Your task to perform on an android device: Open Youtube and go to "Your channel" Image 0: 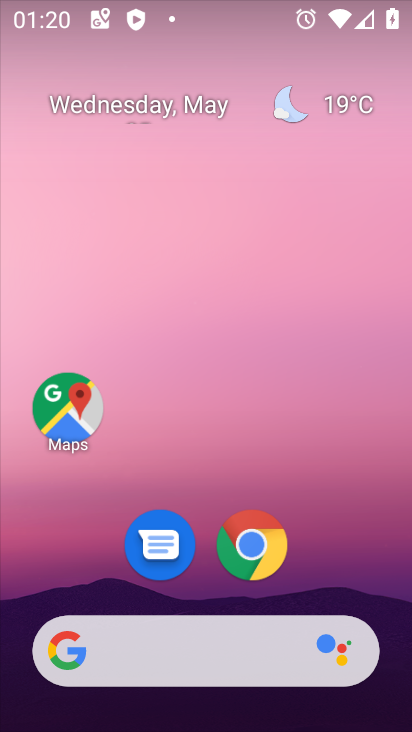
Step 0: drag from (331, 547) to (261, 67)
Your task to perform on an android device: Open Youtube and go to "Your channel" Image 1: 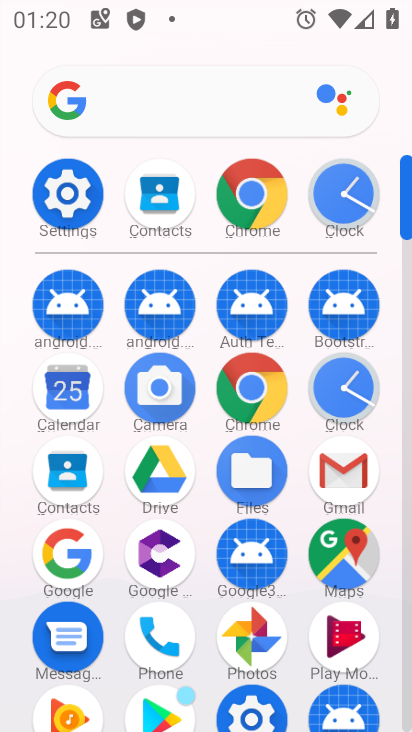
Step 1: drag from (293, 486) to (288, 121)
Your task to perform on an android device: Open Youtube and go to "Your channel" Image 2: 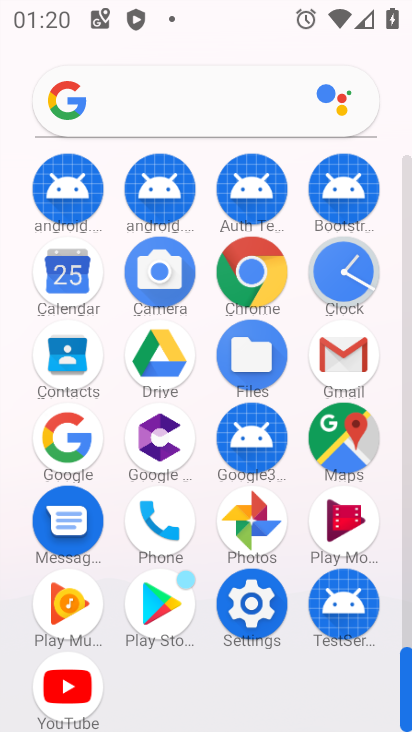
Step 2: click (88, 679)
Your task to perform on an android device: Open Youtube and go to "Your channel" Image 3: 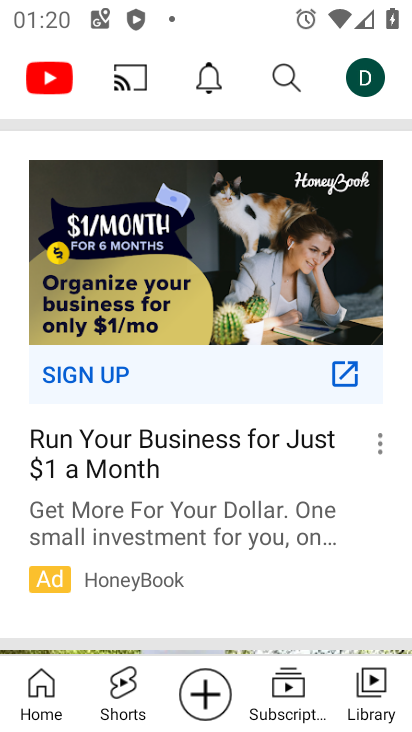
Step 3: click (381, 71)
Your task to perform on an android device: Open Youtube and go to "Your channel" Image 4: 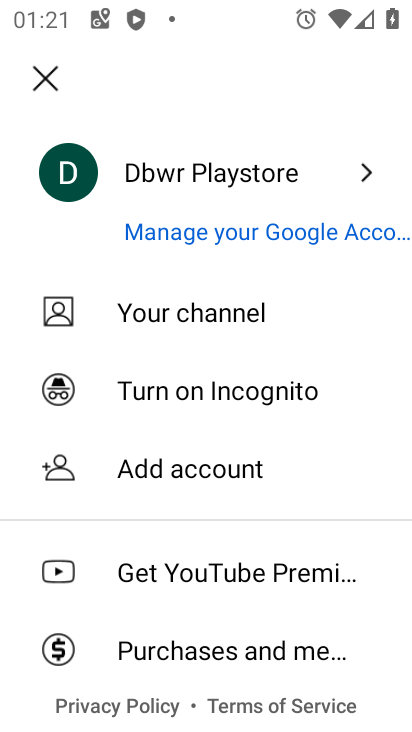
Step 4: click (237, 322)
Your task to perform on an android device: Open Youtube and go to "Your channel" Image 5: 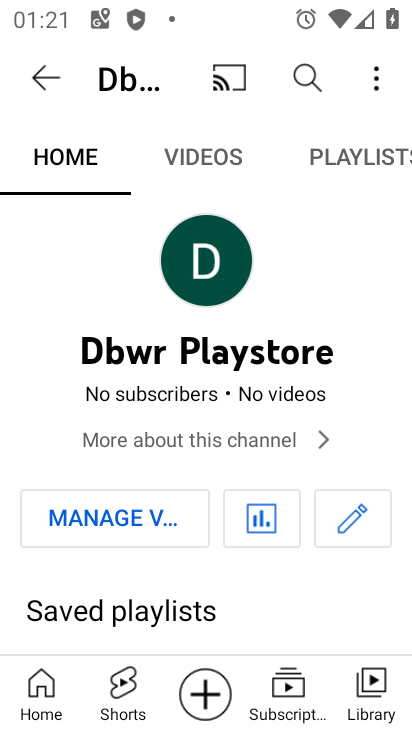
Step 5: task complete